Your task to perform on an android device: read, delete, or share a saved page in the chrome app Image 0: 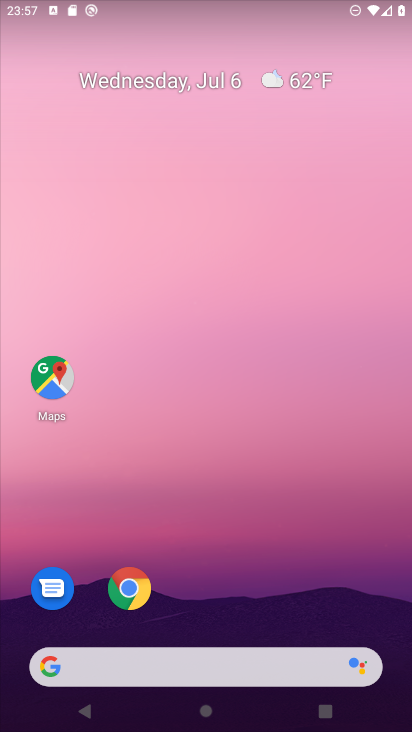
Step 0: click (129, 590)
Your task to perform on an android device: read, delete, or share a saved page in the chrome app Image 1: 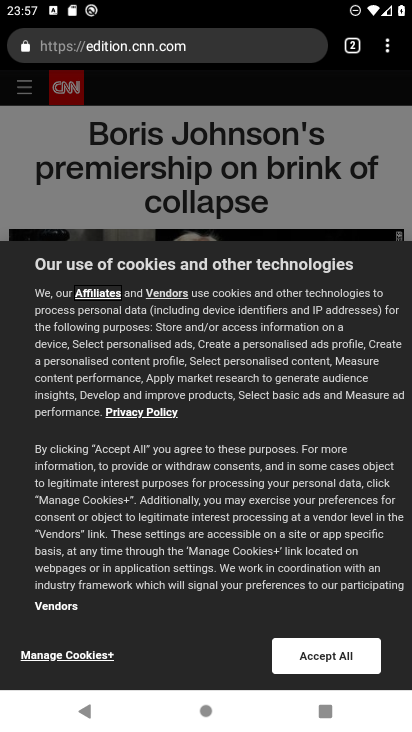
Step 1: click (390, 52)
Your task to perform on an android device: read, delete, or share a saved page in the chrome app Image 2: 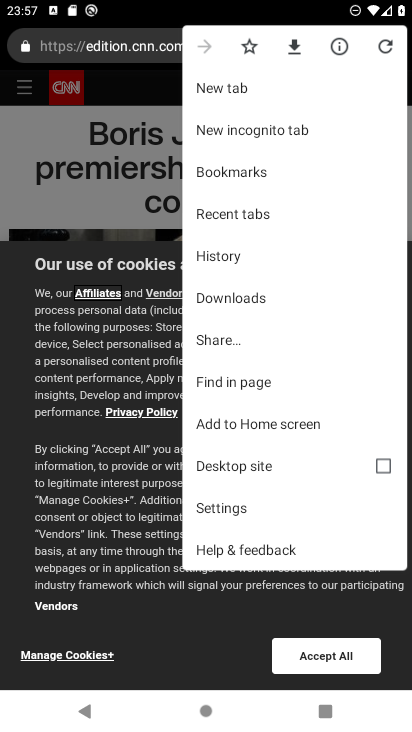
Step 2: click (230, 296)
Your task to perform on an android device: read, delete, or share a saved page in the chrome app Image 3: 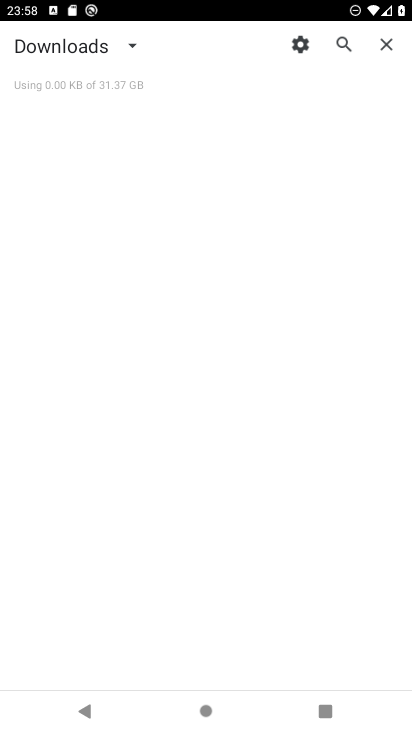
Step 3: click (131, 46)
Your task to perform on an android device: read, delete, or share a saved page in the chrome app Image 4: 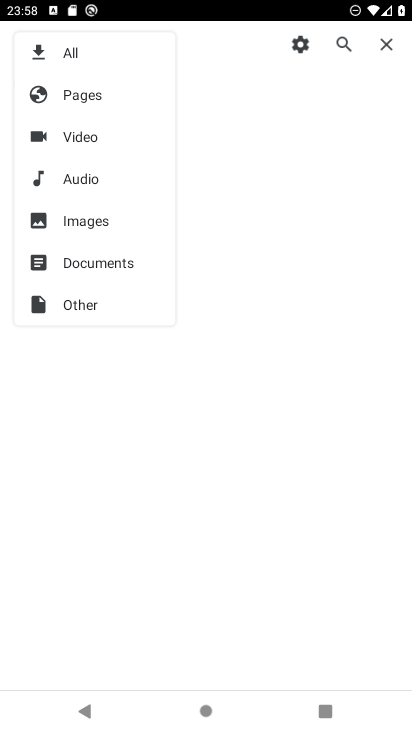
Step 4: click (76, 92)
Your task to perform on an android device: read, delete, or share a saved page in the chrome app Image 5: 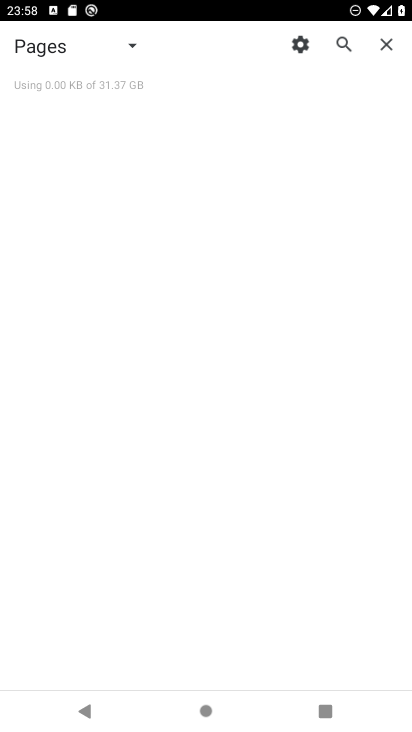
Step 5: task complete